Your task to perform on an android device: turn off javascript in the chrome app Image 0: 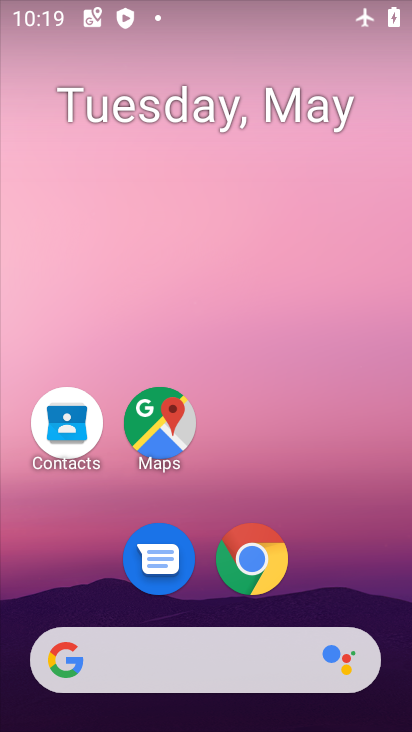
Step 0: click (256, 572)
Your task to perform on an android device: turn off javascript in the chrome app Image 1: 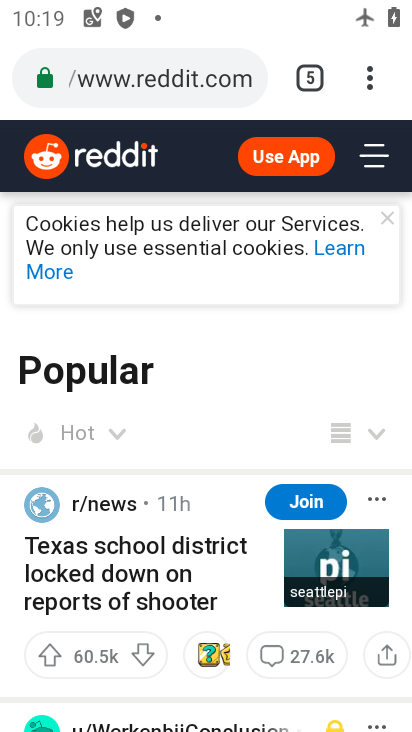
Step 1: click (362, 87)
Your task to perform on an android device: turn off javascript in the chrome app Image 2: 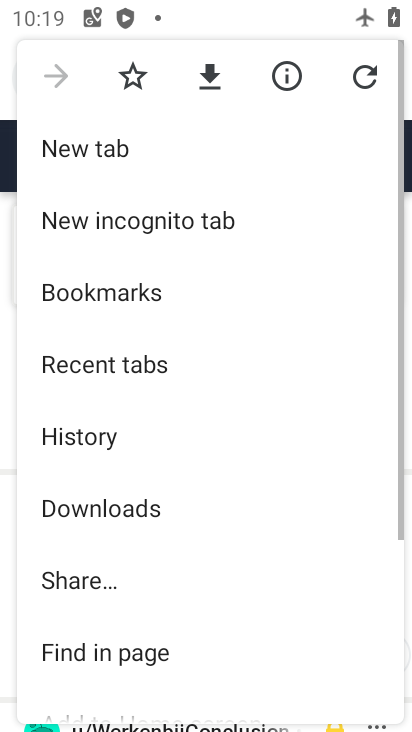
Step 2: drag from (247, 591) to (271, 228)
Your task to perform on an android device: turn off javascript in the chrome app Image 3: 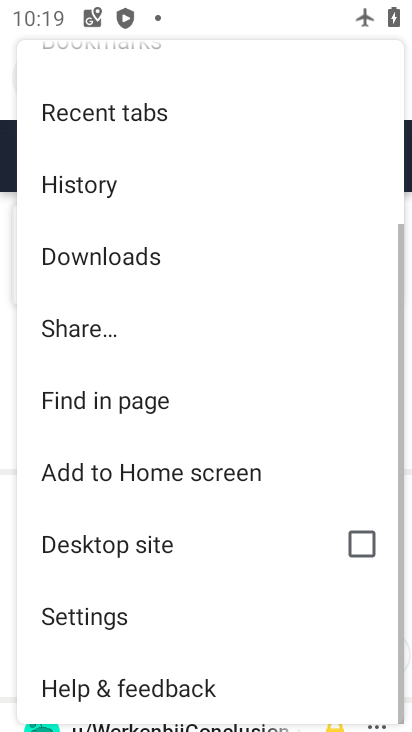
Step 3: click (151, 606)
Your task to perform on an android device: turn off javascript in the chrome app Image 4: 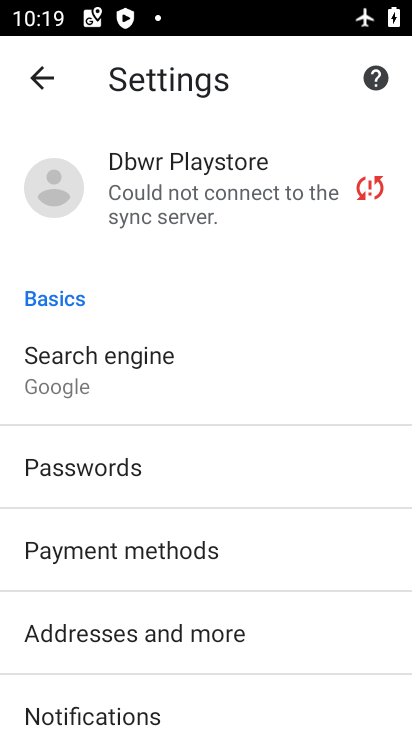
Step 4: drag from (220, 549) to (184, 278)
Your task to perform on an android device: turn off javascript in the chrome app Image 5: 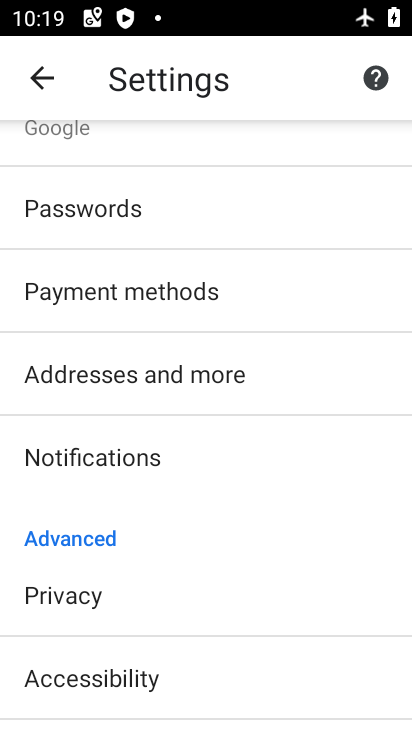
Step 5: drag from (171, 617) to (212, 430)
Your task to perform on an android device: turn off javascript in the chrome app Image 6: 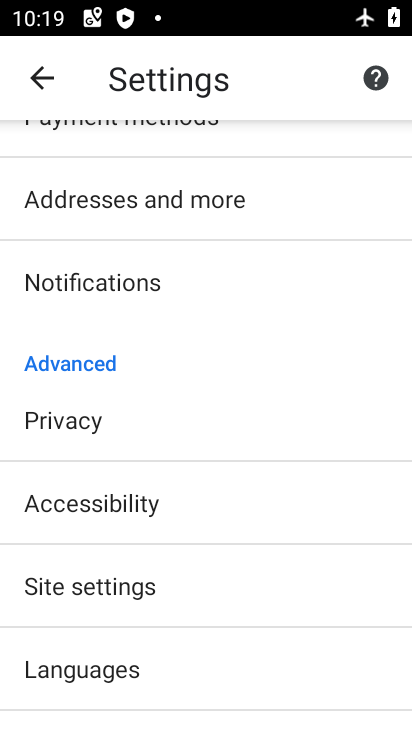
Step 6: click (170, 566)
Your task to perform on an android device: turn off javascript in the chrome app Image 7: 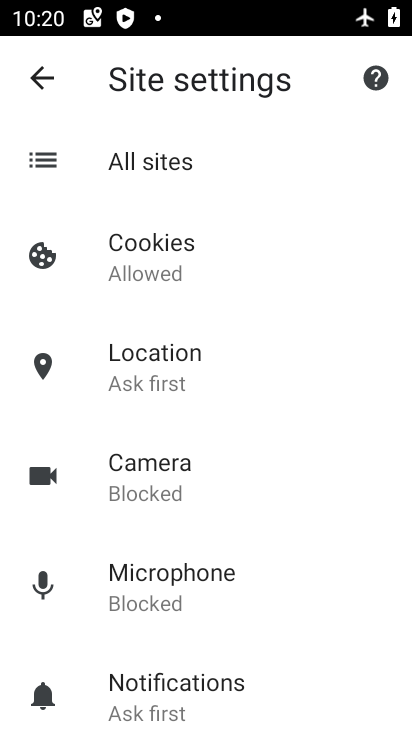
Step 7: drag from (218, 646) to (188, 201)
Your task to perform on an android device: turn off javascript in the chrome app Image 8: 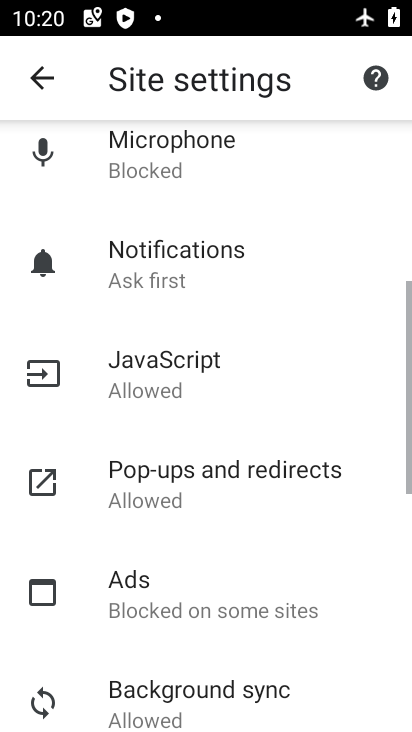
Step 8: click (241, 352)
Your task to perform on an android device: turn off javascript in the chrome app Image 9: 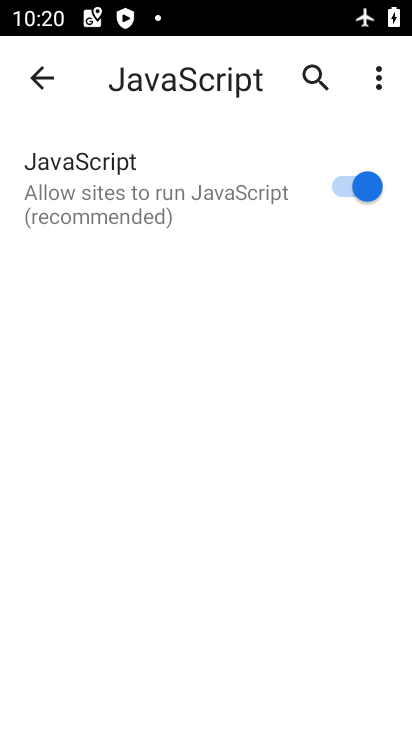
Step 9: click (339, 186)
Your task to perform on an android device: turn off javascript in the chrome app Image 10: 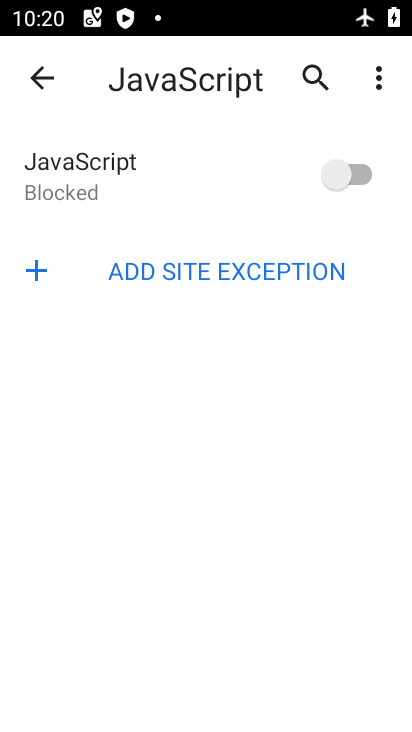
Step 10: task complete